Your task to perform on an android device: open device folders in google photos Image 0: 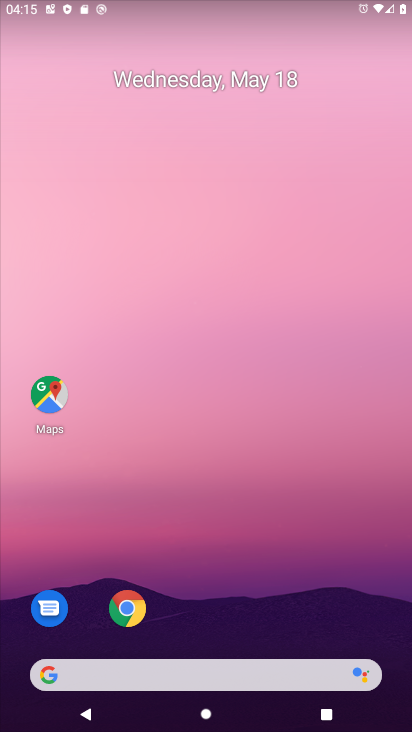
Step 0: drag from (202, 620) to (190, 255)
Your task to perform on an android device: open device folders in google photos Image 1: 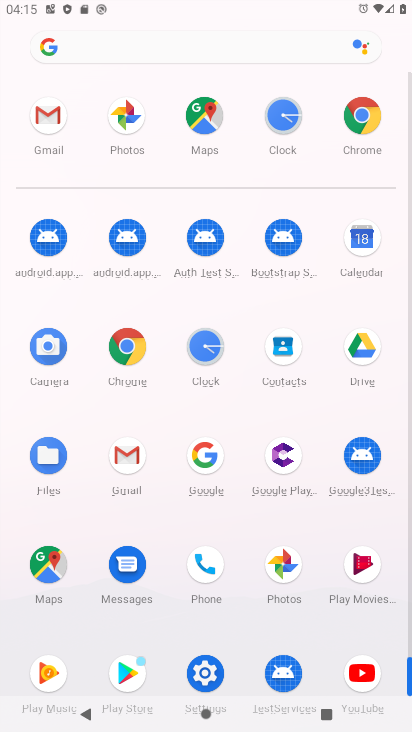
Step 1: click (121, 103)
Your task to perform on an android device: open device folders in google photos Image 2: 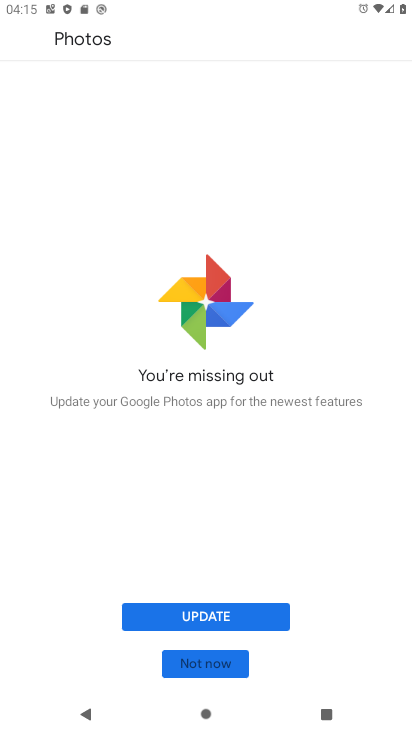
Step 2: click (196, 661)
Your task to perform on an android device: open device folders in google photos Image 3: 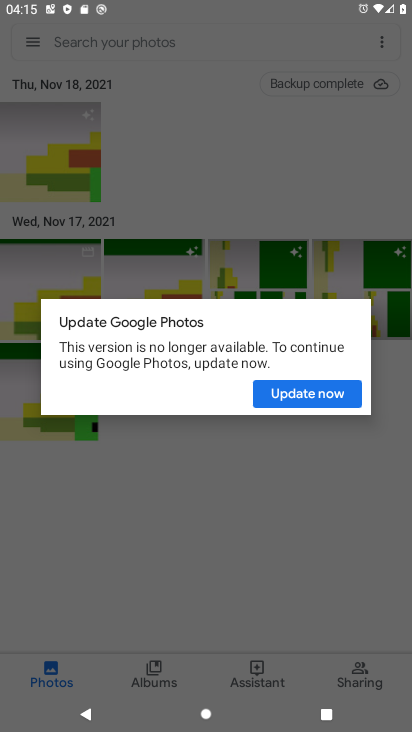
Step 3: click (295, 378)
Your task to perform on an android device: open device folders in google photos Image 4: 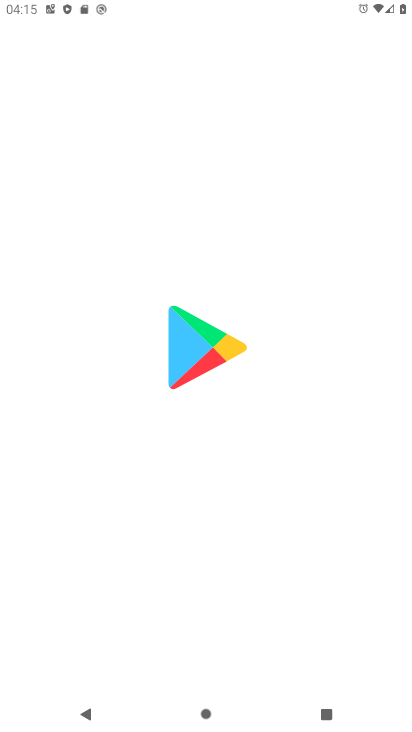
Step 4: click (45, 48)
Your task to perform on an android device: open device folders in google photos Image 5: 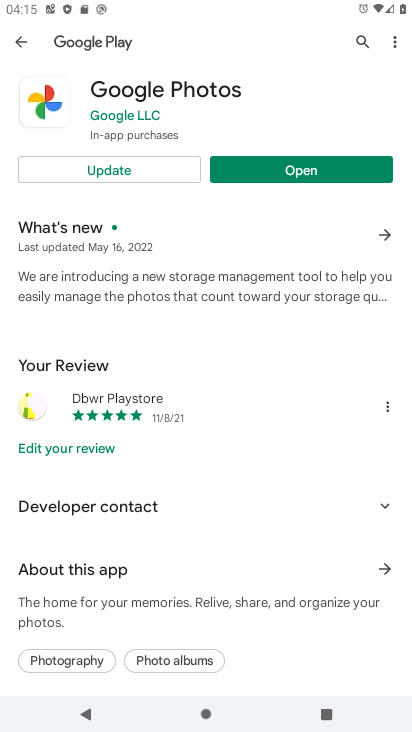
Step 5: click (271, 179)
Your task to perform on an android device: open device folders in google photos Image 6: 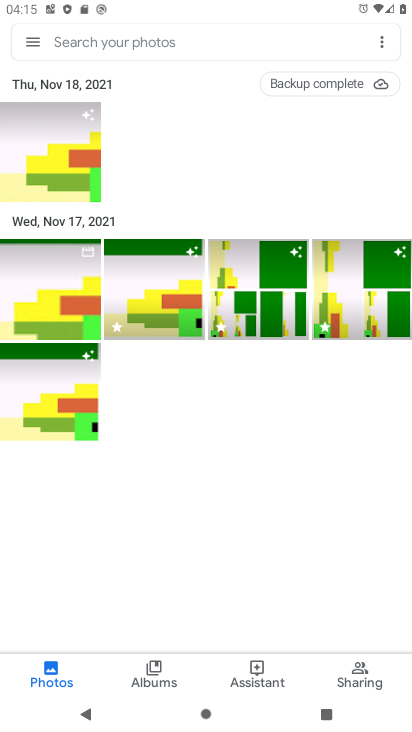
Step 6: click (49, 46)
Your task to perform on an android device: open device folders in google photos Image 7: 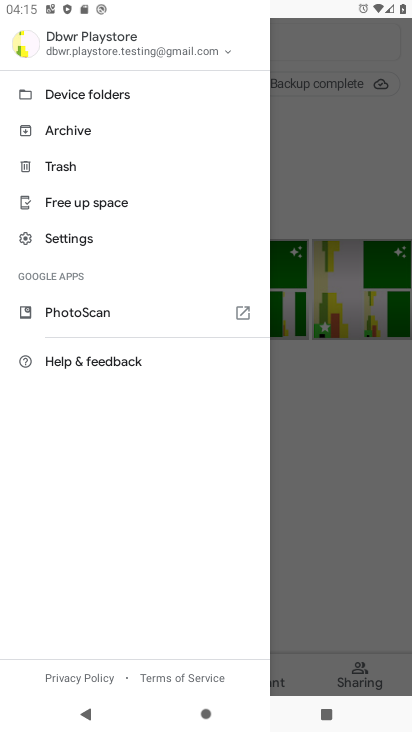
Step 7: click (106, 100)
Your task to perform on an android device: open device folders in google photos Image 8: 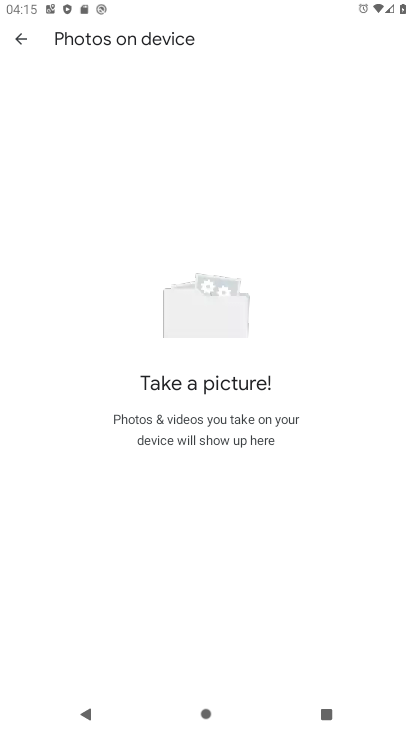
Step 8: task complete